Your task to perform on an android device: Clear all items from cart on target.com. Add razer blackwidow to the cart on target.com, then select checkout. Image 0: 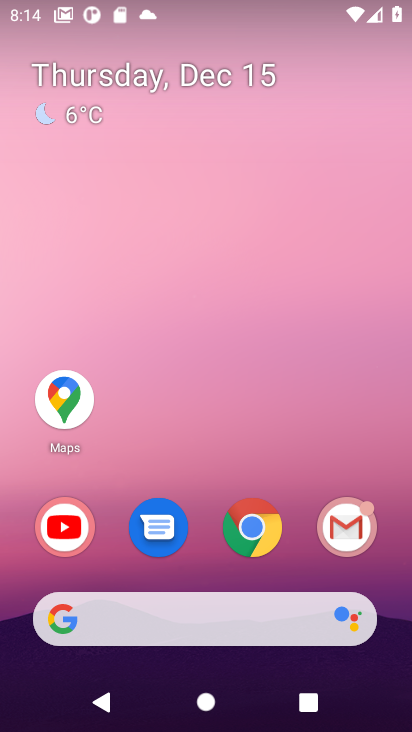
Step 0: click (262, 545)
Your task to perform on an android device: Clear all items from cart on target.com. Add razer blackwidow to the cart on target.com, then select checkout. Image 1: 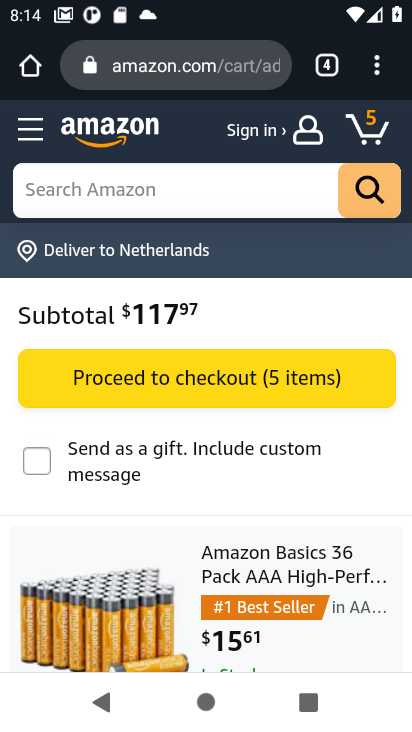
Step 1: click (257, 56)
Your task to perform on an android device: Clear all items from cart on target.com. Add razer blackwidow to the cart on target.com, then select checkout. Image 2: 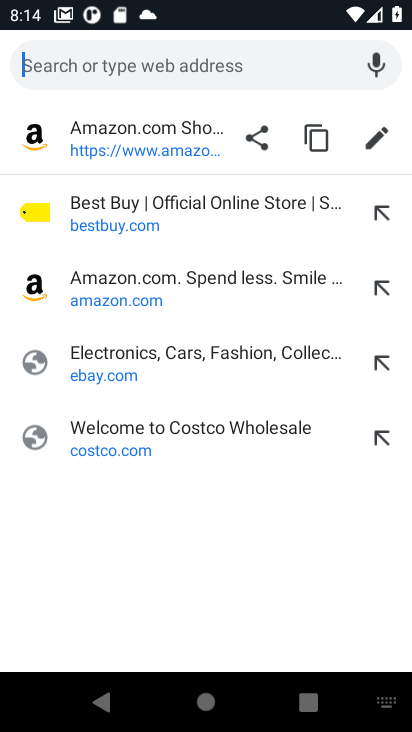
Step 2: type "target"
Your task to perform on an android device: Clear all items from cart on target.com. Add razer blackwidow to the cart on target.com, then select checkout. Image 3: 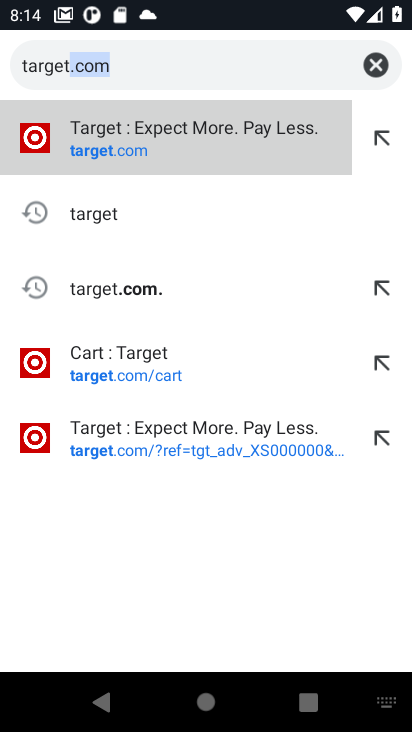
Step 3: click (155, 158)
Your task to perform on an android device: Clear all items from cart on target.com. Add razer blackwidow to the cart on target.com, then select checkout. Image 4: 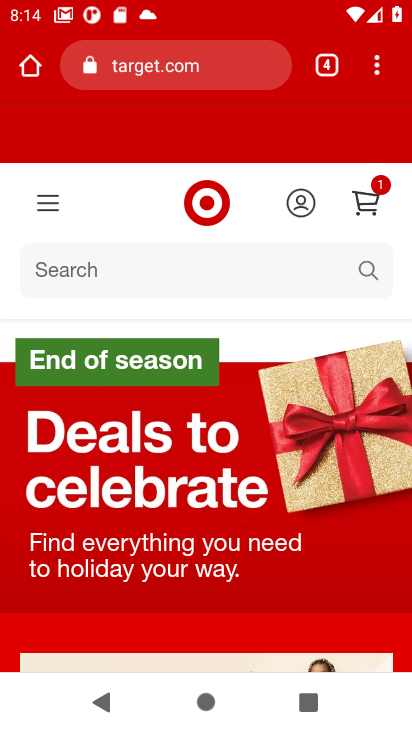
Step 4: click (208, 270)
Your task to perform on an android device: Clear all items from cart on target.com. Add razer blackwidow to the cart on target.com, then select checkout. Image 5: 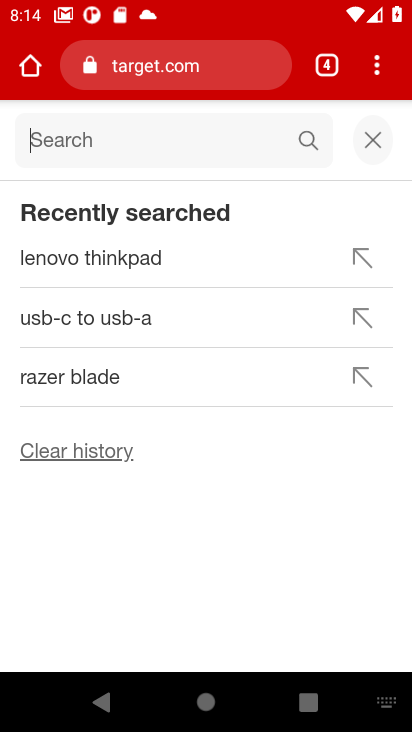
Step 5: type "razer blackwidow"
Your task to perform on an android device: Clear all items from cart on target.com. Add razer blackwidow to the cart on target.com, then select checkout. Image 6: 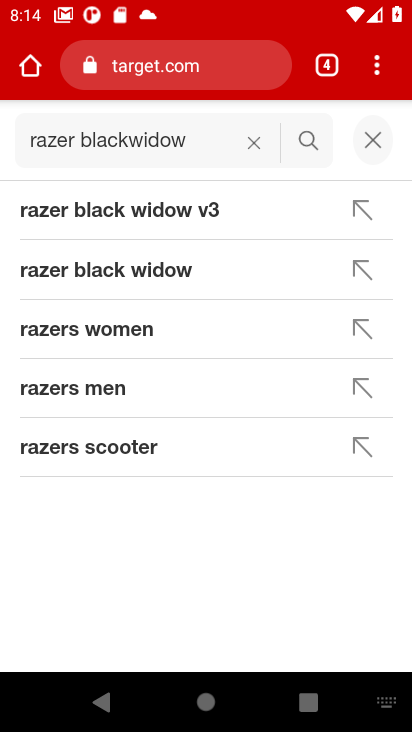
Step 6: click (252, 254)
Your task to perform on an android device: Clear all items from cart on target.com. Add razer blackwidow to the cart on target.com, then select checkout. Image 7: 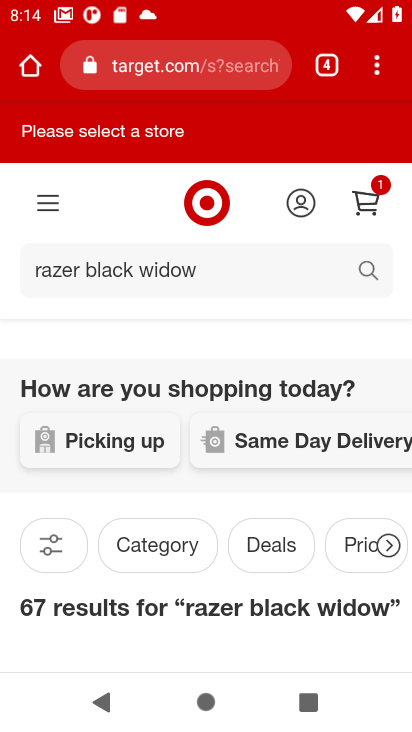
Step 7: drag from (271, 648) to (203, 249)
Your task to perform on an android device: Clear all items from cart on target.com. Add razer blackwidow to the cart on target.com, then select checkout. Image 8: 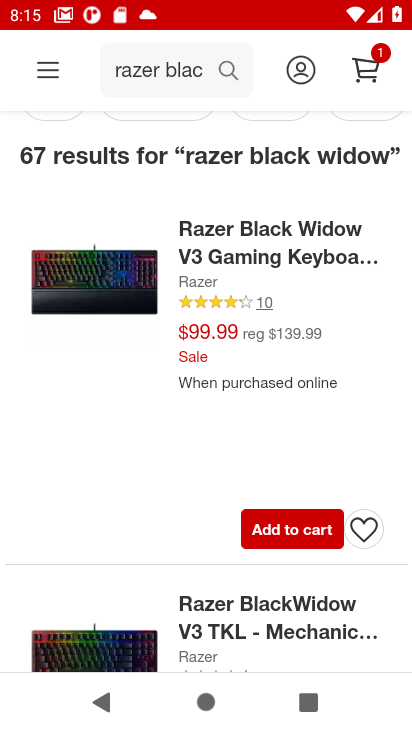
Step 8: click (281, 518)
Your task to perform on an android device: Clear all items from cart on target.com. Add razer blackwidow to the cart on target.com, then select checkout. Image 9: 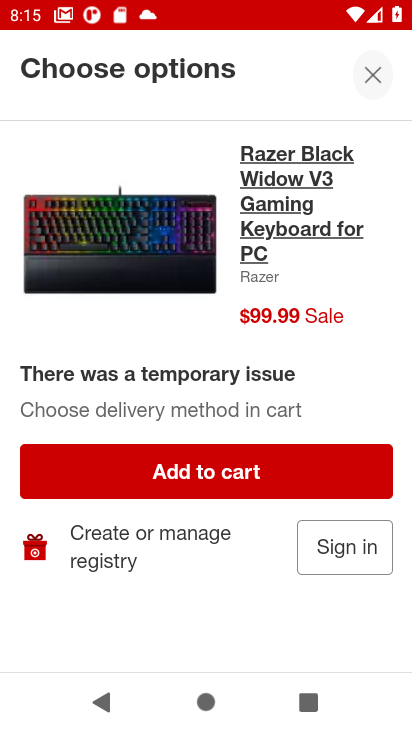
Step 9: task complete